Your task to perform on an android device: Open sound settings Image 0: 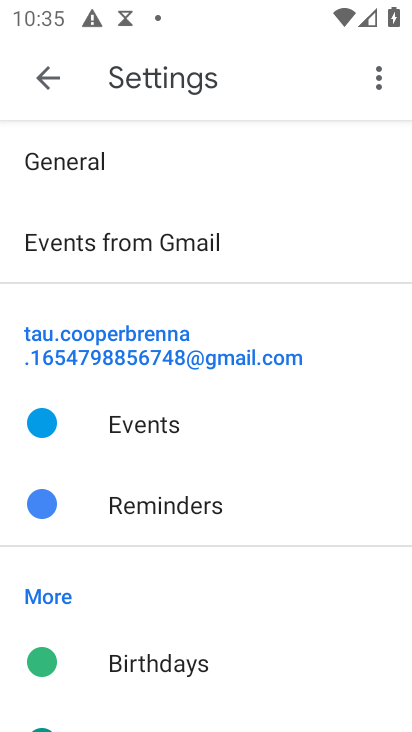
Step 0: press home button
Your task to perform on an android device: Open sound settings Image 1: 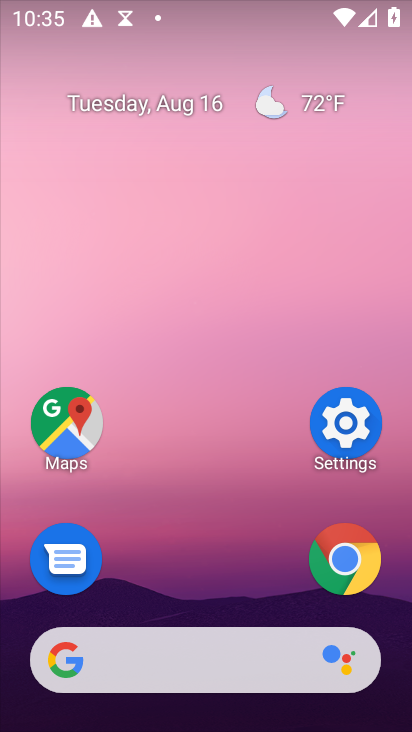
Step 1: click (353, 428)
Your task to perform on an android device: Open sound settings Image 2: 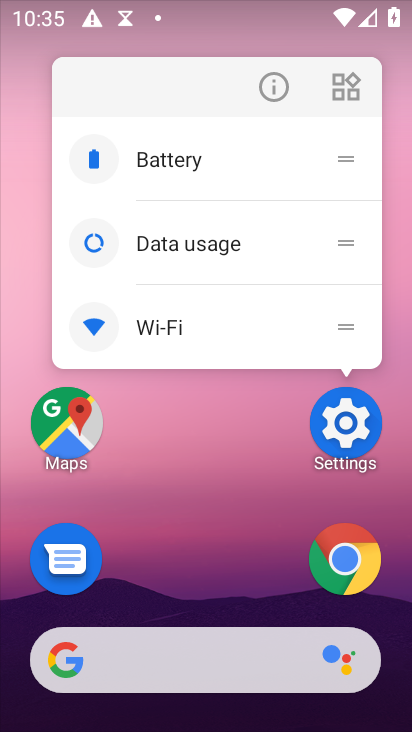
Step 2: click (343, 432)
Your task to perform on an android device: Open sound settings Image 3: 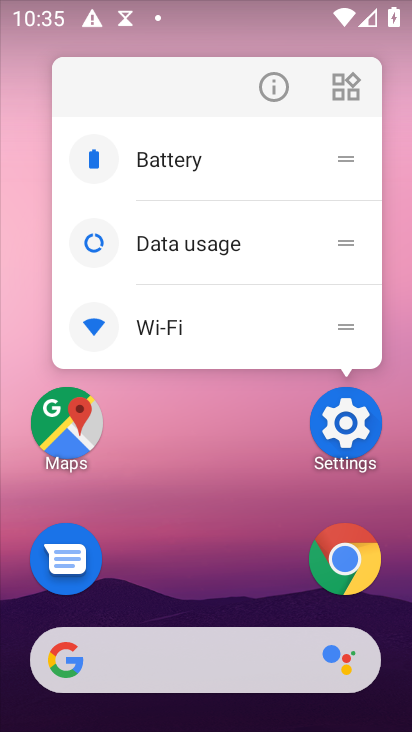
Step 3: click (340, 427)
Your task to perform on an android device: Open sound settings Image 4: 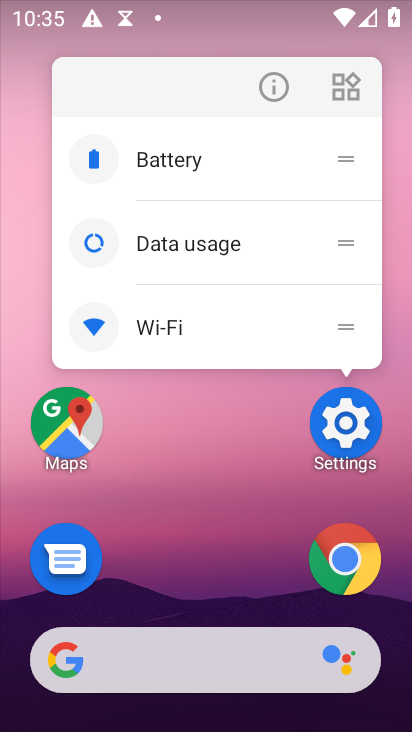
Step 4: click (339, 423)
Your task to perform on an android device: Open sound settings Image 5: 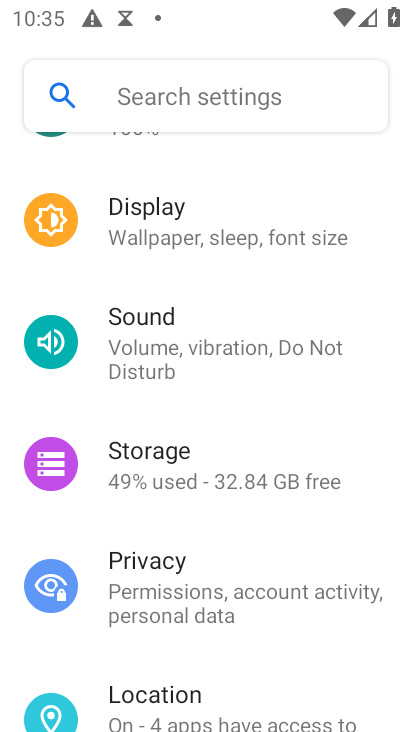
Step 5: click (150, 327)
Your task to perform on an android device: Open sound settings Image 6: 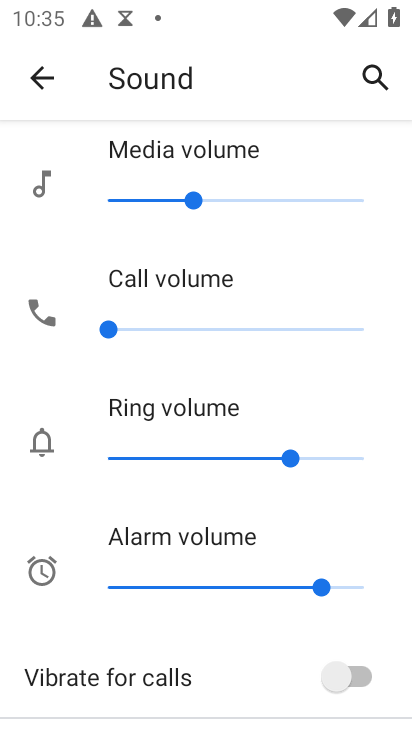
Step 6: task complete